Your task to perform on an android device: open wifi settings Image 0: 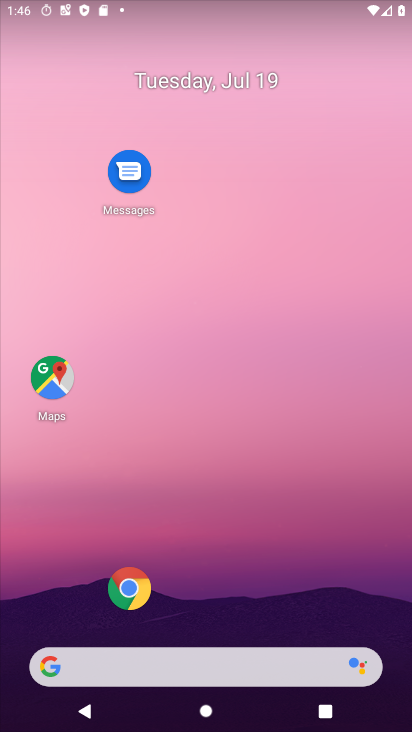
Step 0: drag from (356, 38) to (386, 10)
Your task to perform on an android device: open wifi settings Image 1: 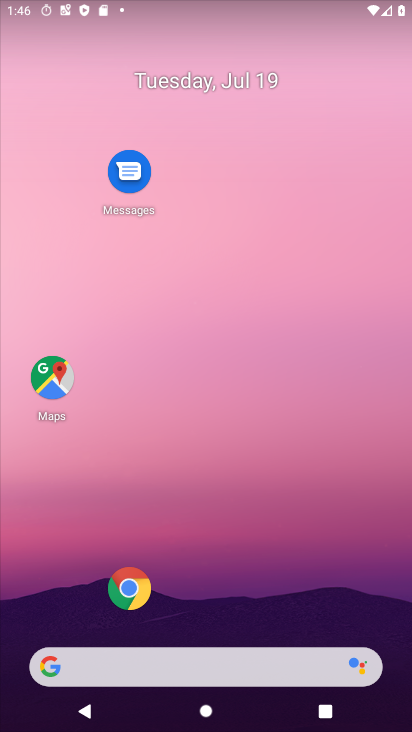
Step 1: drag from (43, 663) to (351, 158)
Your task to perform on an android device: open wifi settings Image 2: 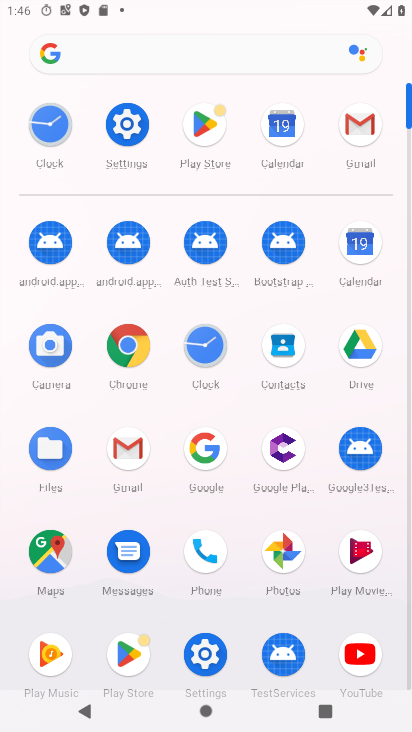
Step 2: click (200, 661)
Your task to perform on an android device: open wifi settings Image 3: 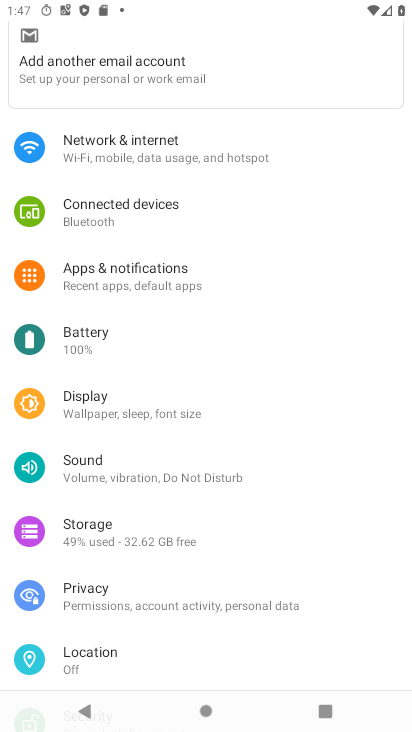
Step 3: click (124, 146)
Your task to perform on an android device: open wifi settings Image 4: 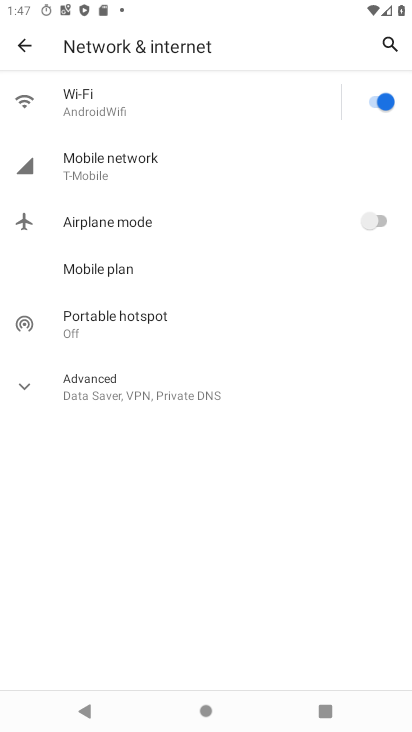
Step 4: task complete